Your task to perform on an android device: turn smart compose on in the gmail app Image 0: 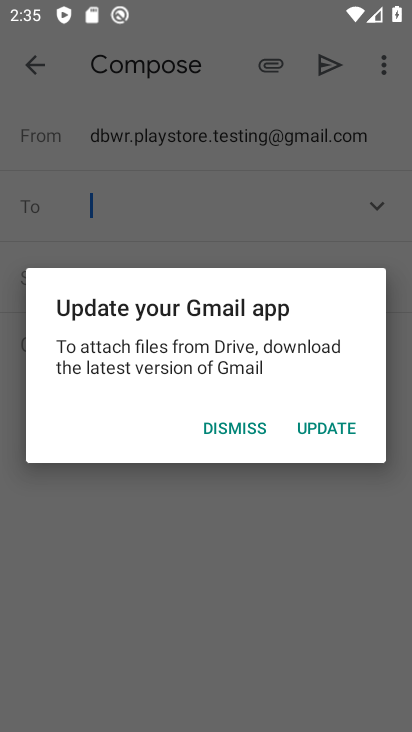
Step 0: press home button
Your task to perform on an android device: turn smart compose on in the gmail app Image 1: 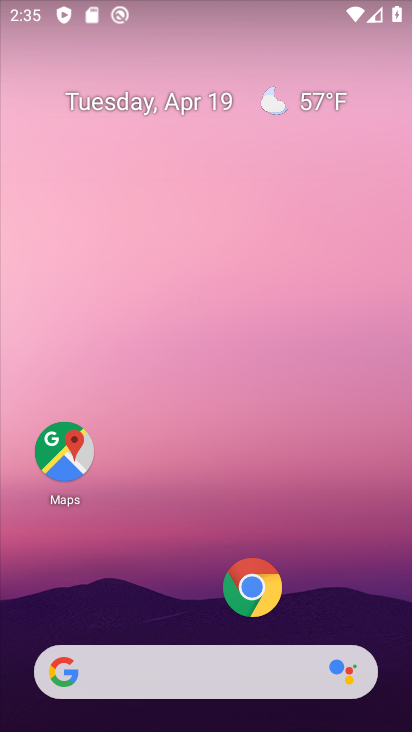
Step 1: drag from (167, 597) to (398, 28)
Your task to perform on an android device: turn smart compose on in the gmail app Image 2: 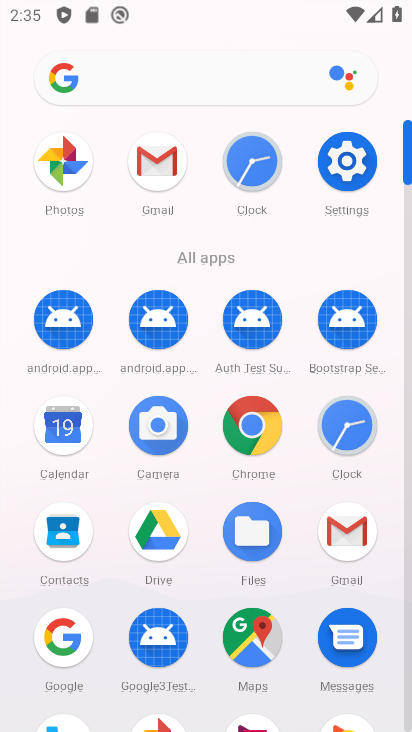
Step 2: click (348, 527)
Your task to perform on an android device: turn smart compose on in the gmail app Image 3: 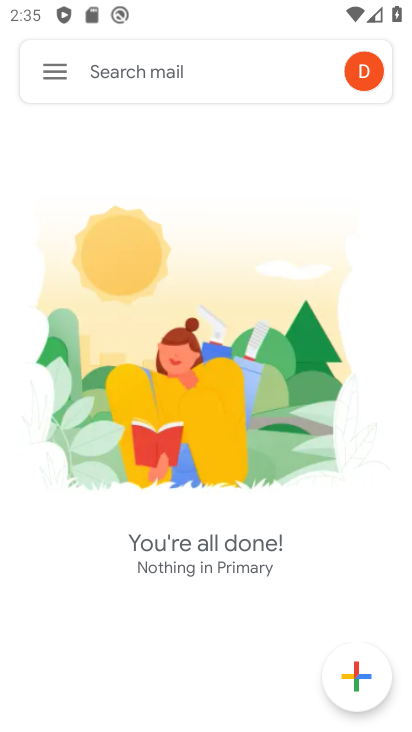
Step 3: click (53, 68)
Your task to perform on an android device: turn smart compose on in the gmail app Image 4: 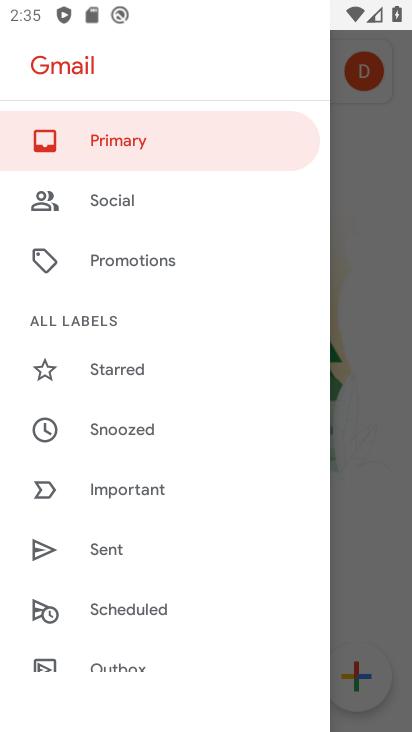
Step 4: drag from (151, 646) to (228, 162)
Your task to perform on an android device: turn smart compose on in the gmail app Image 5: 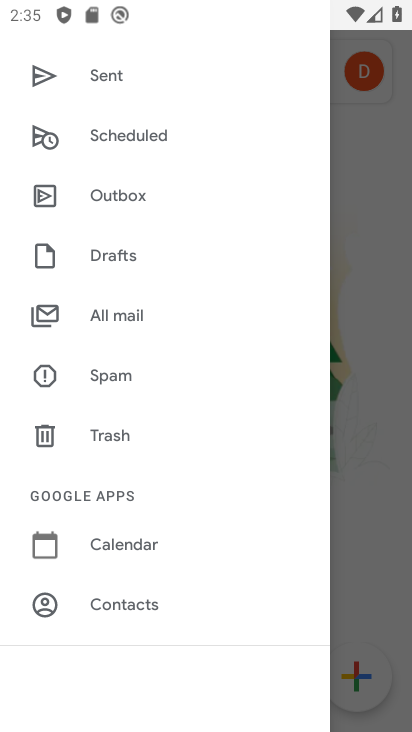
Step 5: drag from (128, 542) to (183, 159)
Your task to perform on an android device: turn smart compose on in the gmail app Image 6: 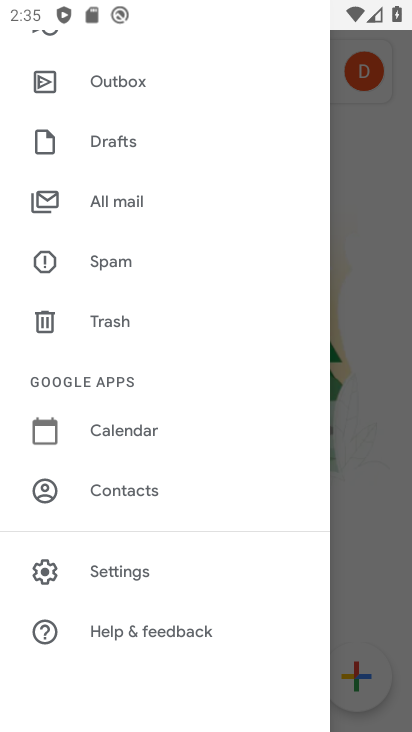
Step 6: click (123, 573)
Your task to perform on an android device: turn smart compose on in the gmail app Image 7: 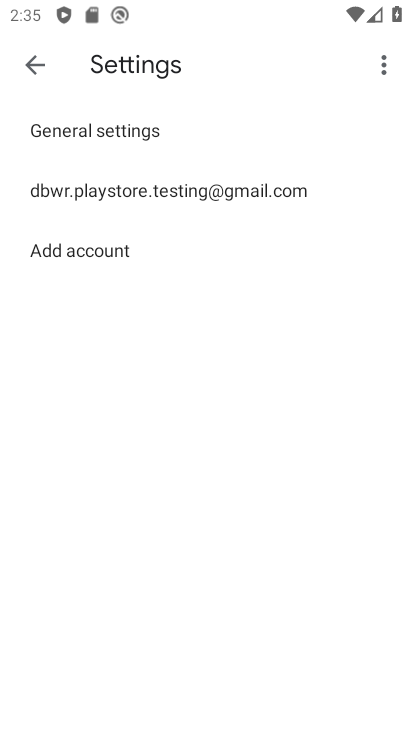
Step 7: click (137, 193)
Your task to perform on an android device: turn smart compose on in the gmail app Image 8: 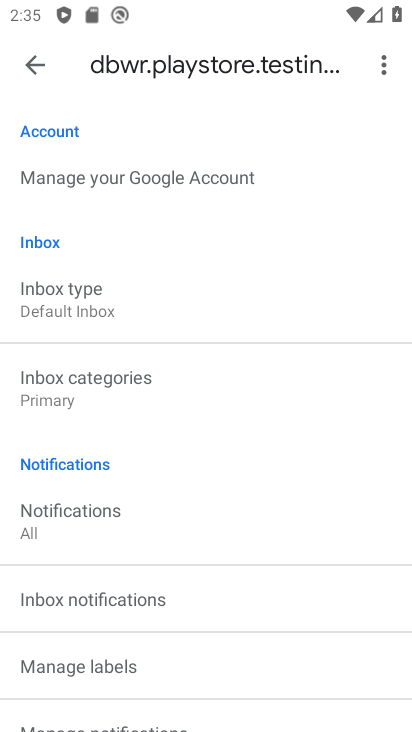
Step 8: task complete